Your task to perform on an android device: Is it going to rain tomorrow? Image 0: 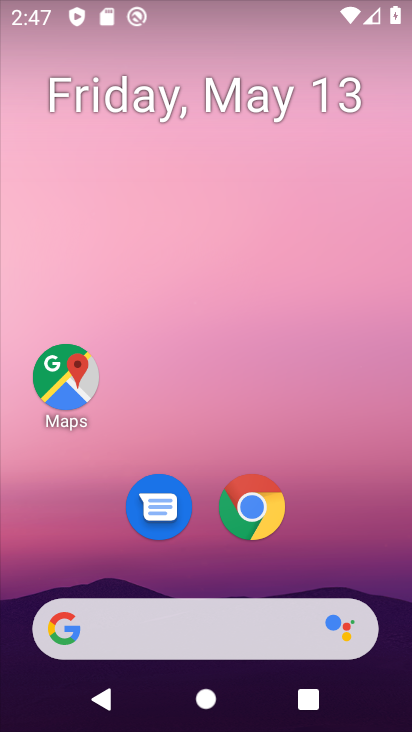
Step 0: click (244, 613)
Your task to perform on an android device: Is it going to rain tomorrow? Image 1: 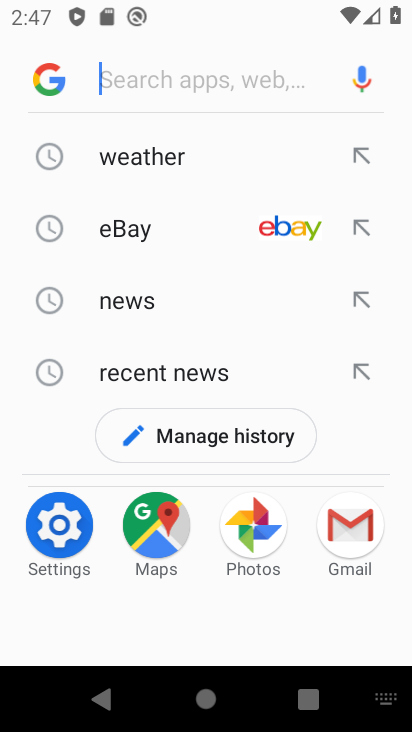
Step 1: click (194, 158)
Your task to perform on an android device: Is it going to rain tomorrow? Image 2: 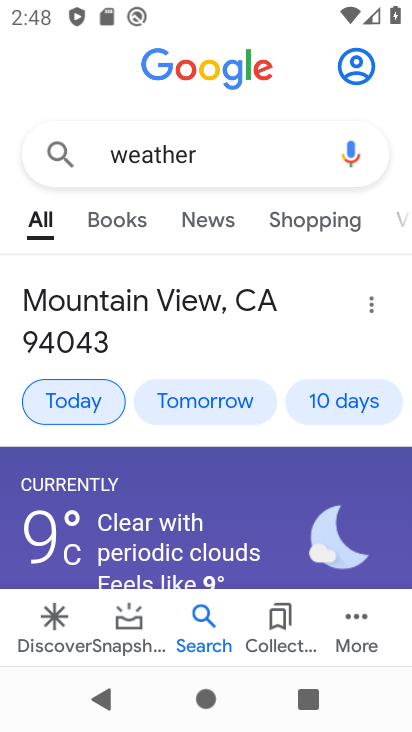
Step 2: click (174, 408)
Your task to perform on an android device: Is it going to rain tomorrow? Image 3: 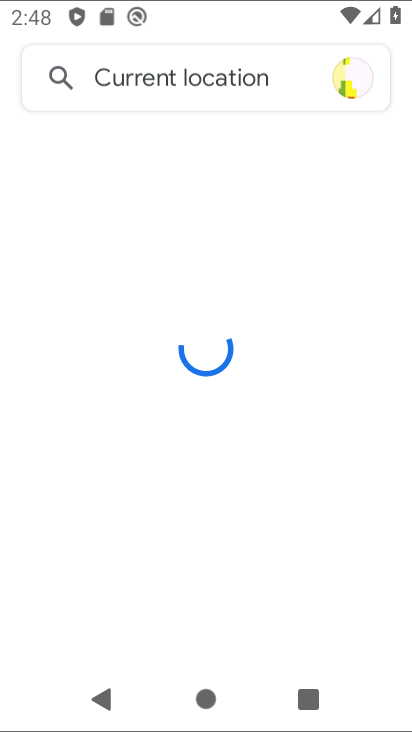
Step 3: task complete